Your task to perform on an android device: Open the calendar app, open the side menu, and click the "Day" option Image 0: 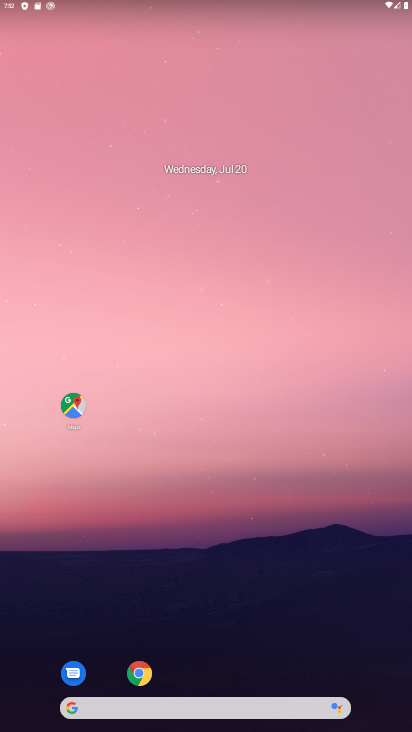
Step 0: drag from (183, 641) to (100, 17)
Your task to perform on an android device: Open the calendar app, open the side menu, and click the "Day" option Image 1: 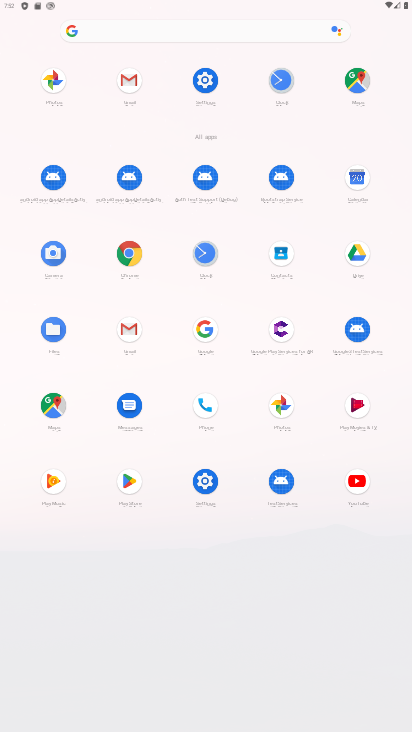
Step 1: drag from (225, 543) to (252, 359)
Your task to perform on an android device: Open the calendar app, open the side menu, and click the "Day" option Image 2: 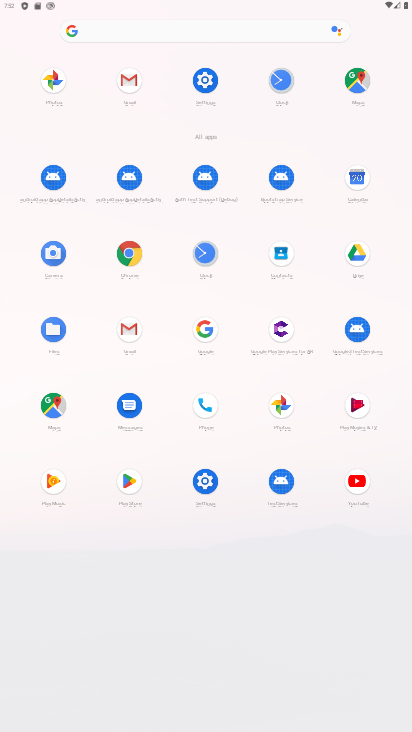
Step 2: click (358, 175)
Your task to perform on an android device: Open the calendar app, open the side menu, and click the "Day" option Image 3: 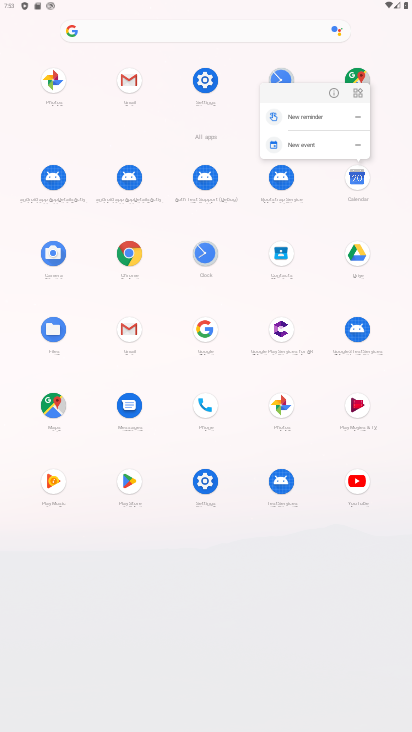
Step 3: click (332, 92)
Your task to perform on an android device: Open the calendar app, open the side menu, and click the "Day" option Image 4: 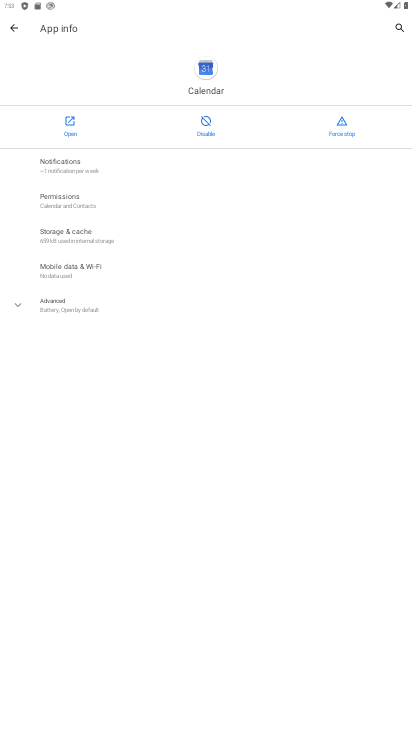
Step 4: click (59, 113)
Your task to perform on an android device: Open the calendar app, open the side menu, and click the "Day" option Image 5: 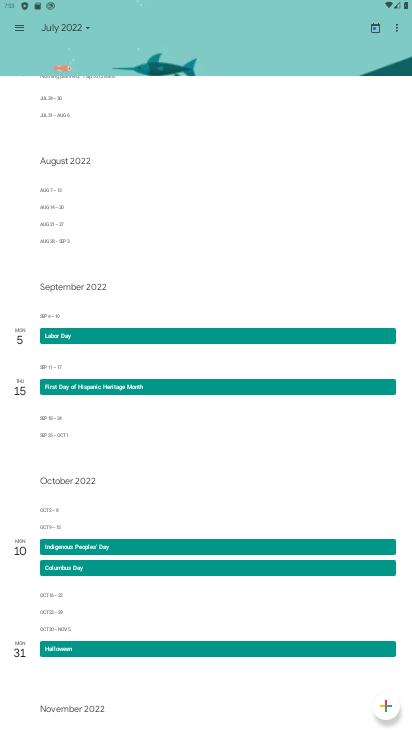
Step 5: click (4, 23)
Your task to perform on an android device: Open the calendar app, open the side menu, and click the "Day" option Image 6: 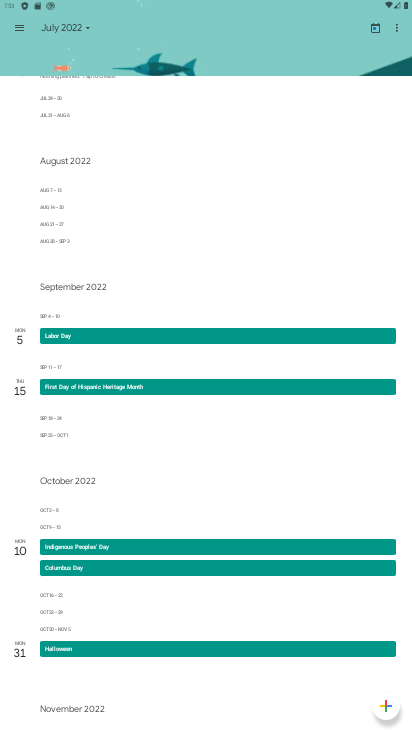
Step 6: click (18, 22)
Your task to perform on an android device: Open the calendar app, open the side menu, and click the "Day" option Image 7: 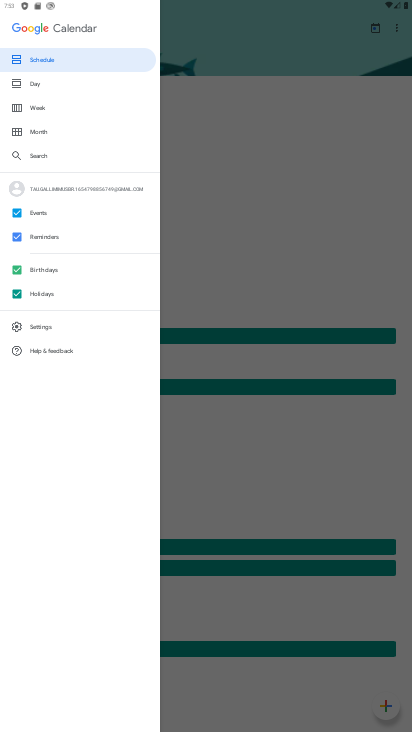
Step 7: click (50, 89)
Your task to perform on an android device: Open the calendar app, open the side menu, and click the "Day" option Image 8: 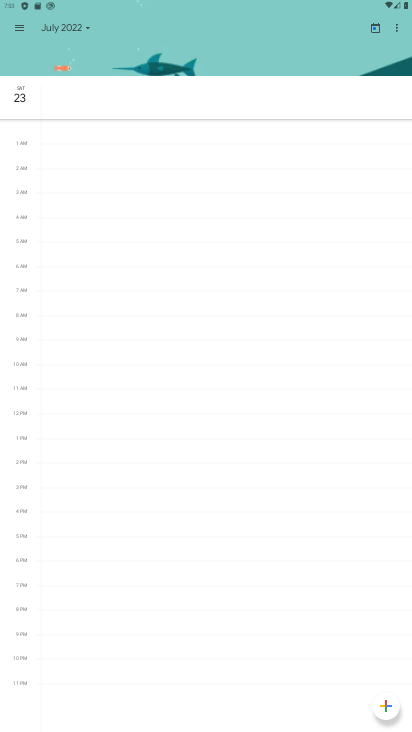
Step 8: task complete